Your task to perform on an android device: Toggle the flashlight Image 0: 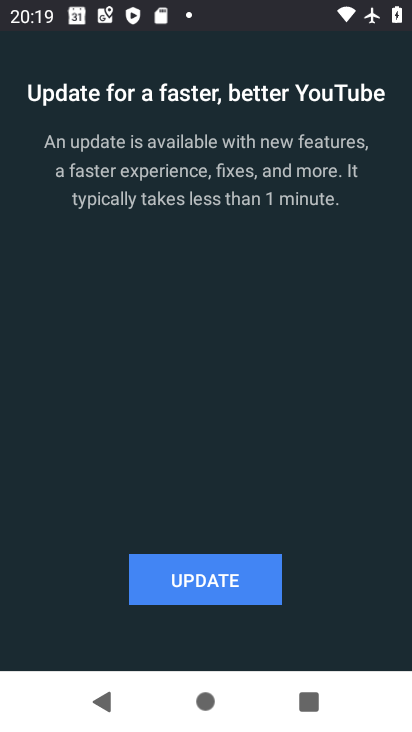
Step 0: press home button
Your task to perform on an android device: Toggle the flashlight Image 1: 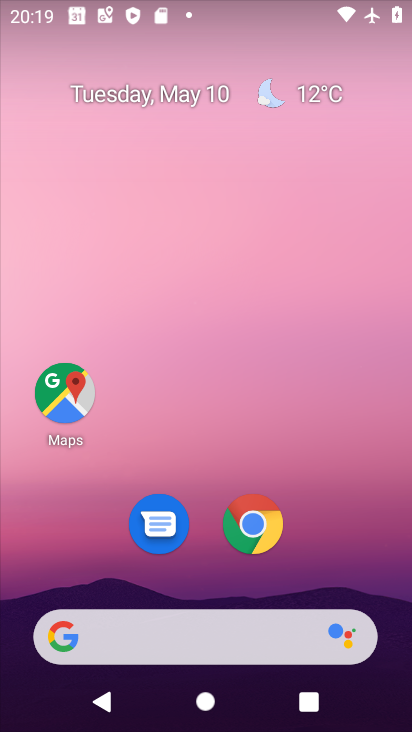
Step 1: drag from (310, 493) to (302, 27)
Your task to perform on an android device: Toggle the flashlight Image 2: 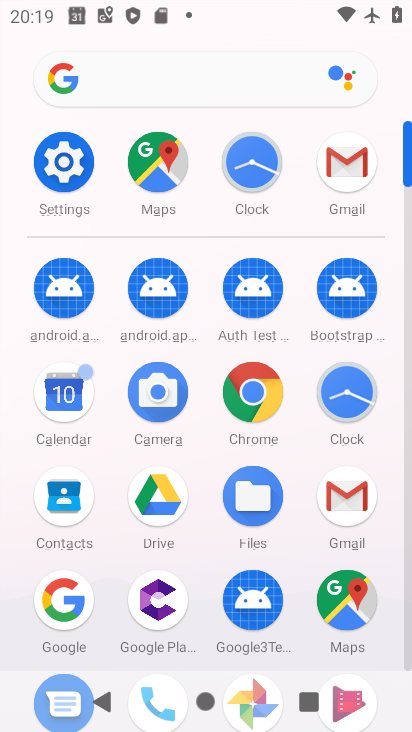
Step 2: click (63, 149)
Your task to perform on an android device: Toggle the flashlight Image 3: 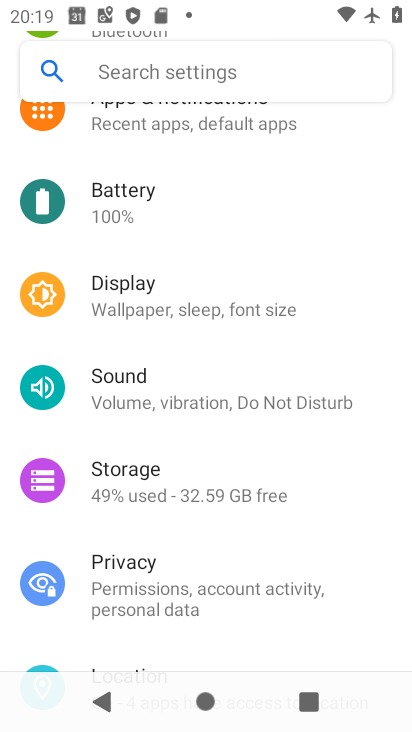
Step 3: click (229, 64)
Your task to perform on an android device: Toggle the flashlight Image 4: 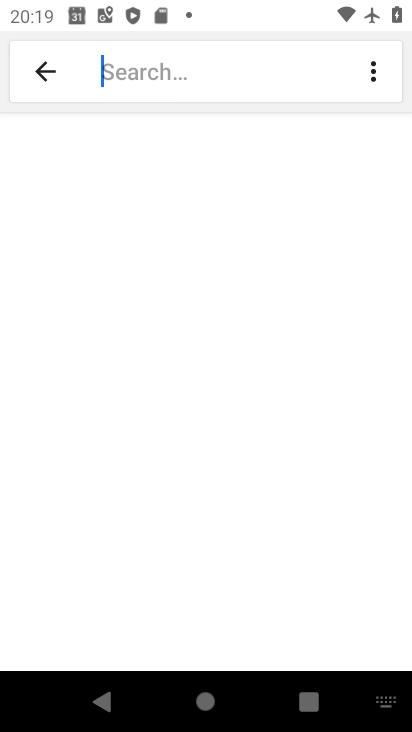
Step 4: type "Flashlight"
Your task to perform on an android device: Toggle the flashlight Image 5: 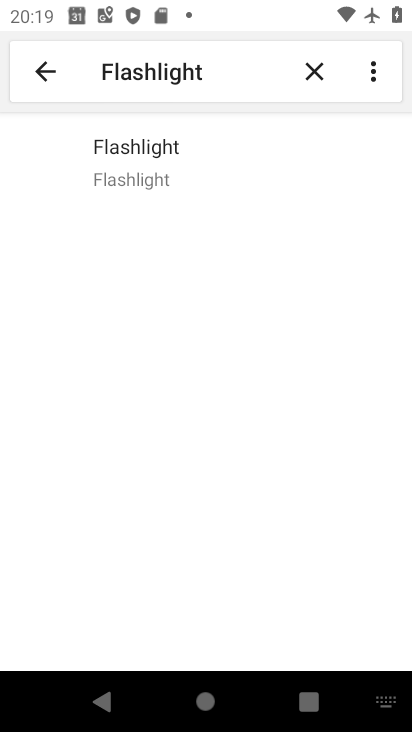
Step 5: click (122, 147)
Your task to perform on an android device: Toggle the flashlight Image 6: 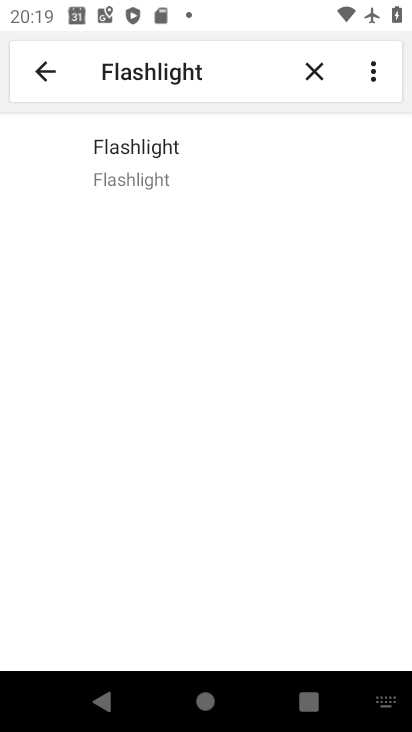
Step 6: click (122, 146)
Your task to perform on an android device: Toggle the flashlight Image 7: 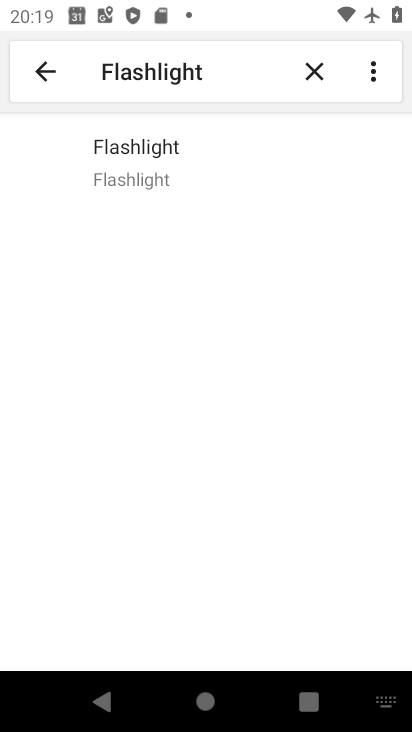
Step 7: task complete